Your task to perform on an android device: Show me popular games on the Play Store Image 0: 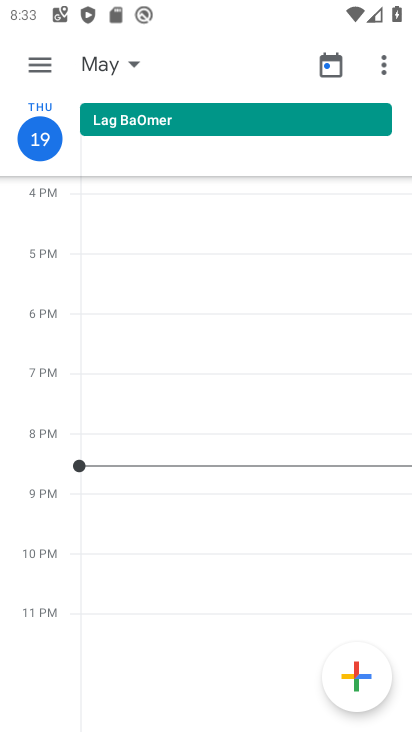
Step 0: press back button
Your task to perform on an android device: Show me popular games on the Play Store Image 1: 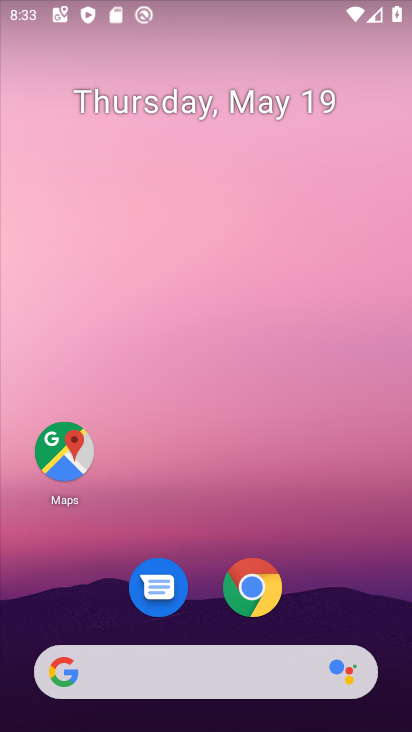
Step 1: drag from (338, 583) to (255, 61)
Your task to perform on an android device: Show me popular games on the Play Store Image 2: 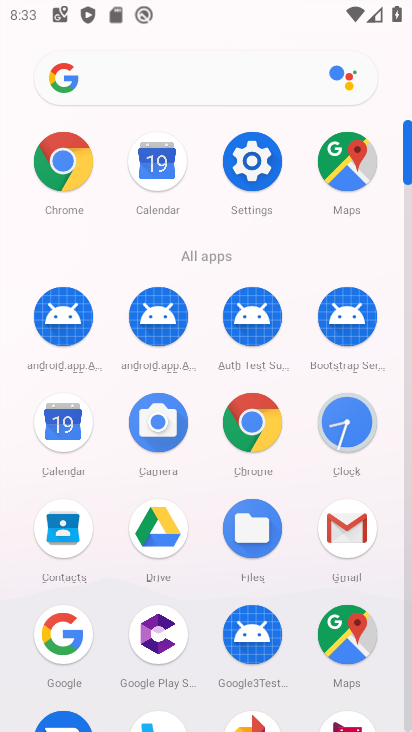
Step 2: drag from (20, 589) to (4, 248)
Your task to perform on an android device: Show me popular games on the Play Store Image 3: 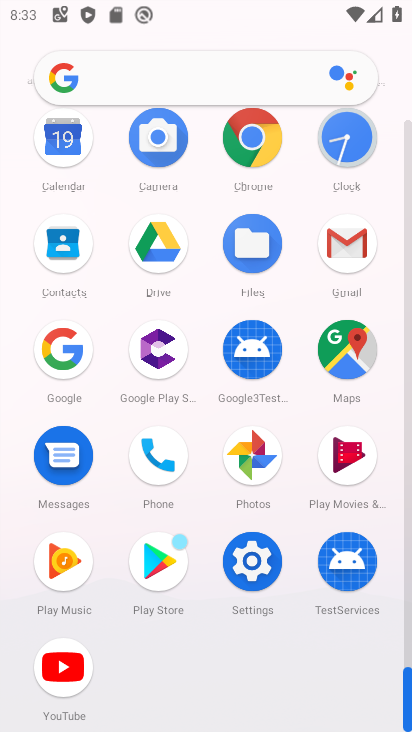
Step 3: click (157, 549)
Your task to perform on an android device: Show me popular games on the Play Store Image 4: 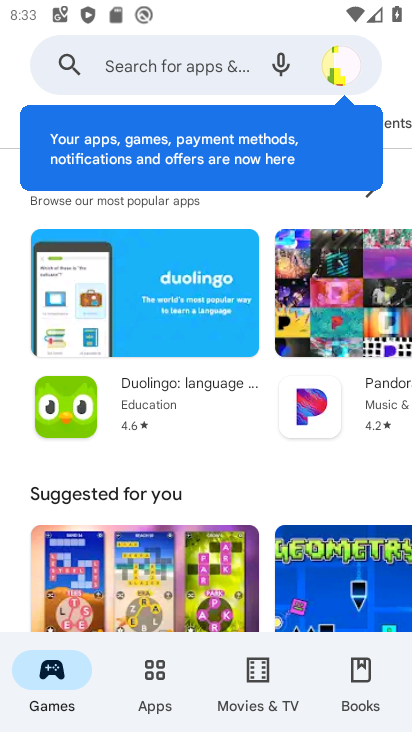
Step 4: task complete